Your task to perform on an android device: toggle data saver in the chrome app Image 0: 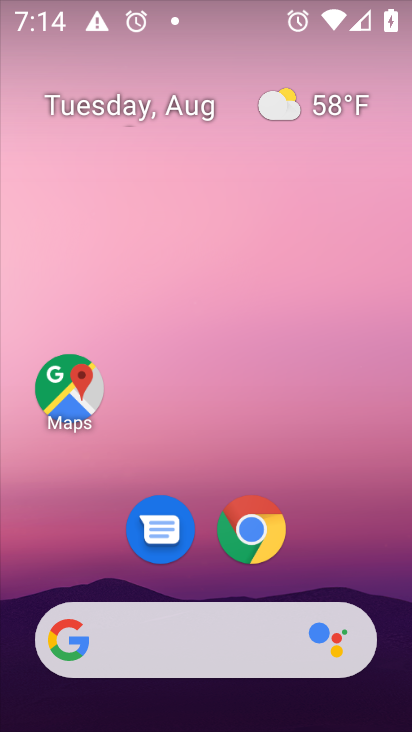
Step 0: press home button
Your task to perform on an android device: toggle data saver in the chrome app Image 1: 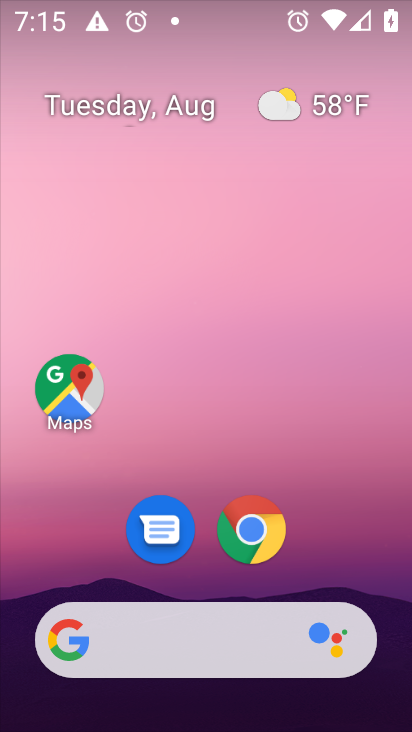
Step 1: click (259, 531)
Your task to perform on an android device: toggle data saver in the chrome app Image 2: 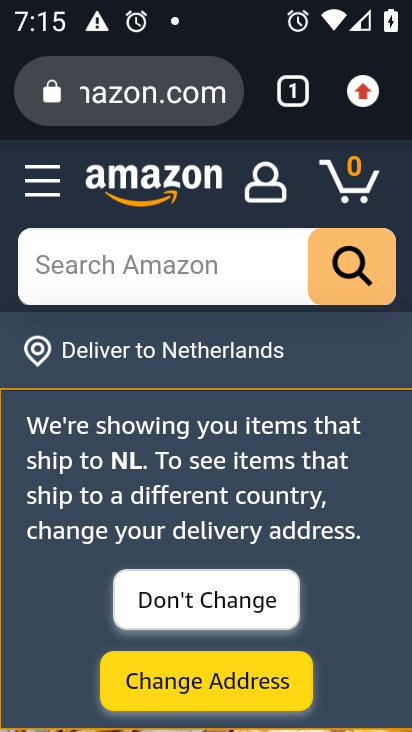
Step 2: drag from (360, 90) to (145, 568)
Your task to perform on an android device: toggle data saver in the chrome app Image 3: 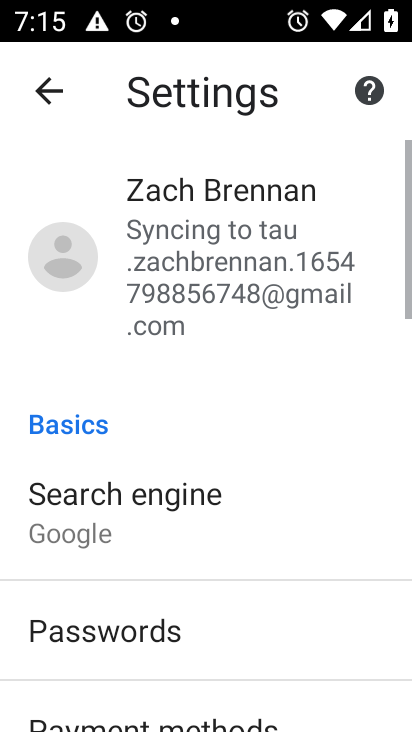
Step 3: drag from (299, 654) to (333, 169)
Your task to perform on an android device: toggle data saver in the chrome app Image 4: 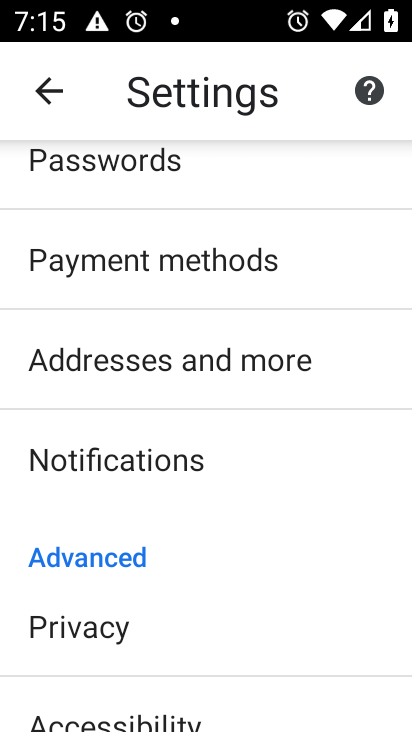
Step 4: drag from (289, 599) to (297, 220)
Your task to perform on an android device: toggle data saver in the chrome app Image 5: 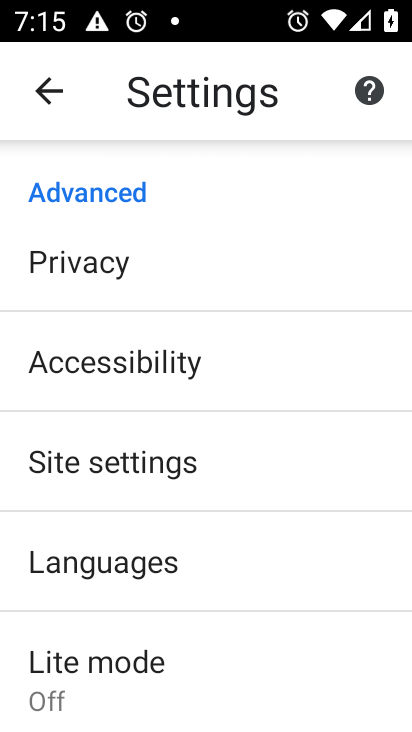
Step 5: click (82, 672)
Your task to perform on an android device: toggle data saver in the chrome app Image 6: 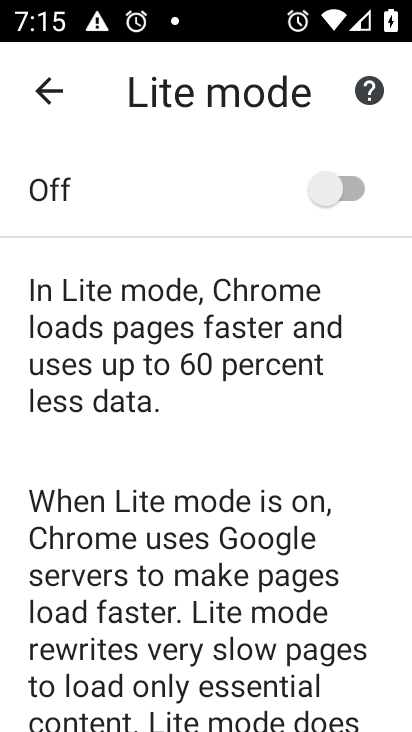
Step 6: click (327, 189)
Your task to perform on an android device: toggle data saver in the chrome app Image 7: 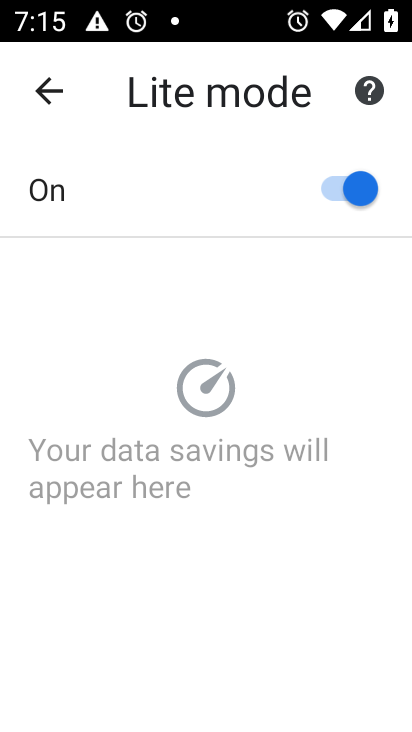
Step 7: task complete